Your task to perform on an android device: all mails in gmail Image 0: 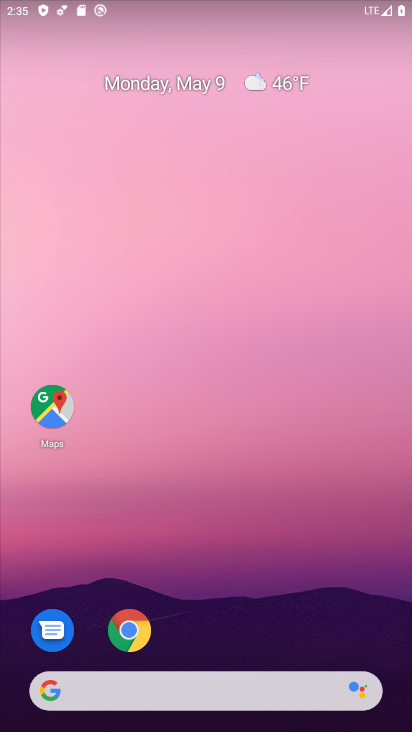
Step 0: drag from (225, 626) to (215, 313)
Your task to perform on an android device: all mails in gmail Image 1: 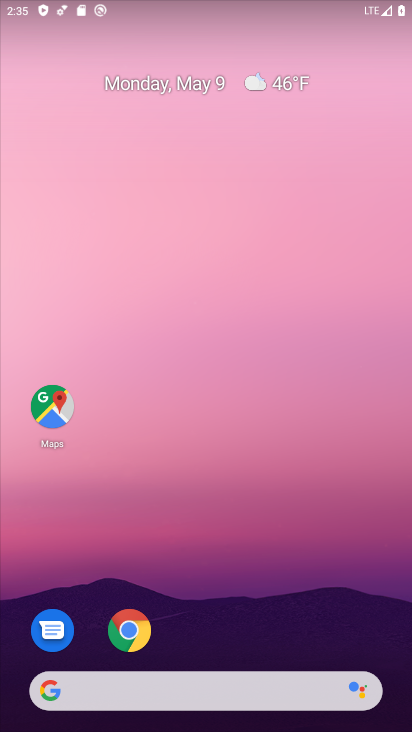
Step 1: drag from (260, 540) to (292, 387)
Your task to perform on an android device: all mails in gmail Image 2: 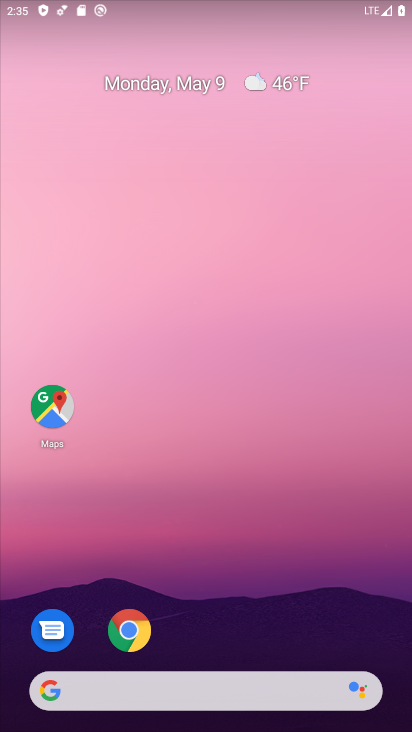
Step 2: drag from (255, 609) to (291, 229)
Your task to perform on an android device: all mails in gmail Image 3: 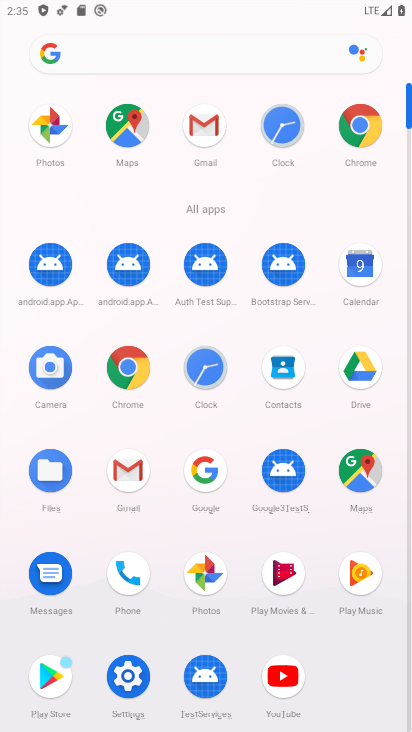
Step 3: click (196, 143)
Your task to perform on an android device: all mails in gmail Image 4: 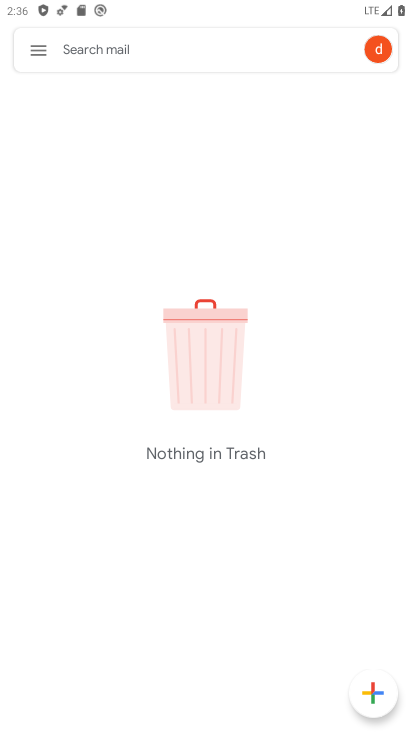
Step 4: click (21, 47)
Your task to perform on an android device: all mails in gmail Image 5: 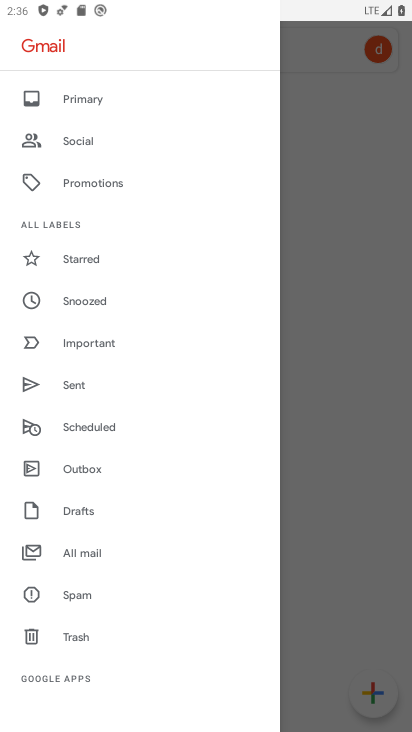
Step 5: drag from (79, 159) to (81, 619)
Your task to perform on an android device: all mails in gmail Image 6: 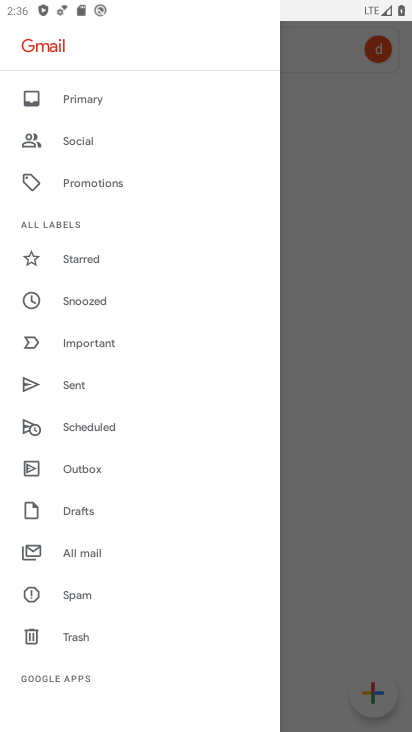
Step 6: drag from (109, 605) to (120, 534)
Your task to perform on an android device: all mails in gmail Image 7: 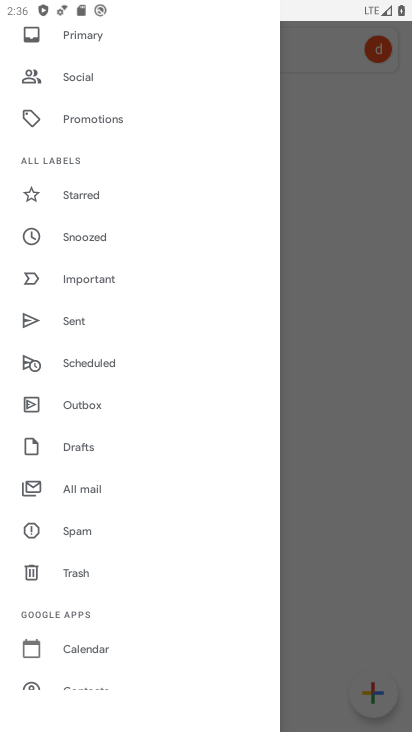
Step 7: click (118, 500)
Your task to perform on an android device: all mails in gmail Image 8: 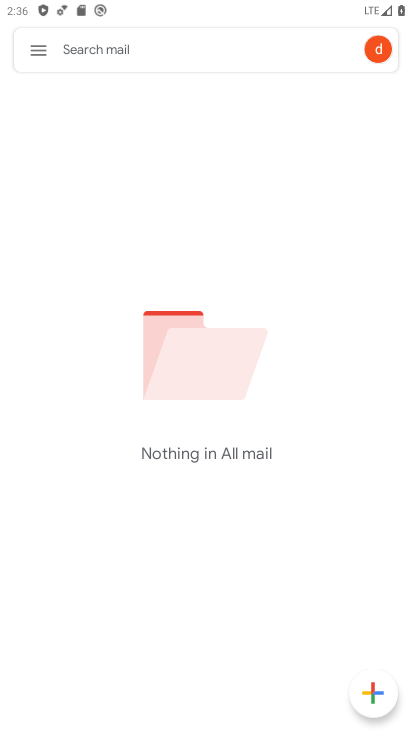
Step 8: task complete